Your task to perform on an android device: Go to calendar. Show me events next week Image 0: 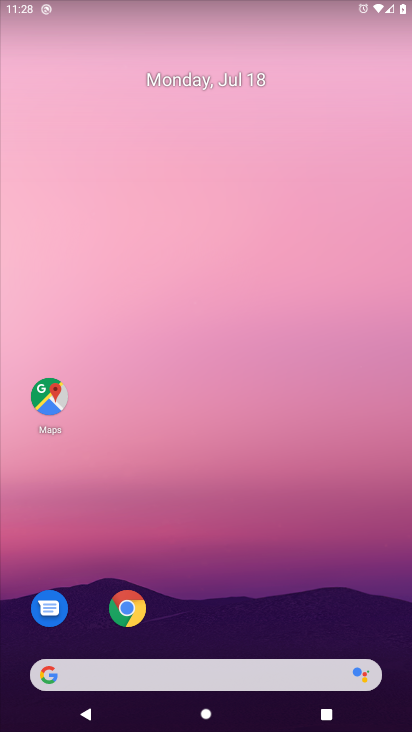
Step 0: drag from (18, 706) to (195, 74)
Your task to perform on an android device: Go to calendar. Show me events next week Image 1: 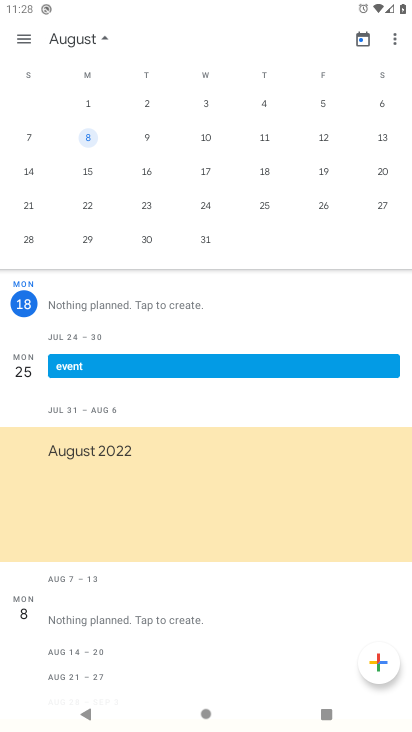
Step 1: drag from (16, 105) to (205, 81)
Your task to perform on an android device: Go to calendar. Show me events next week Image 2: 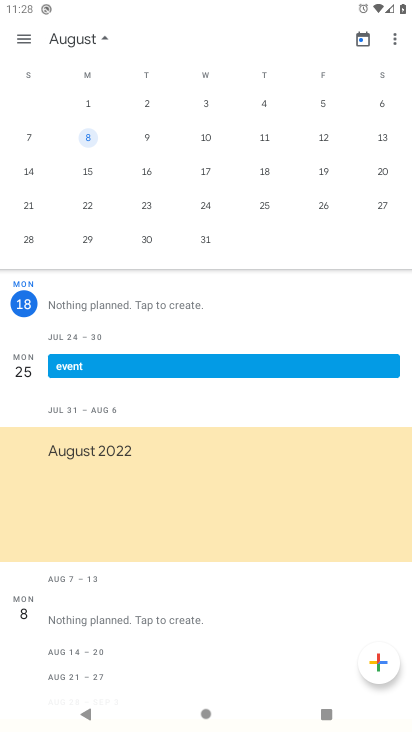
Step 2: drag from (15, 101) to (319, 48)
Your task to perform on an android device: Go to calendar. Show me events next week Image 3: 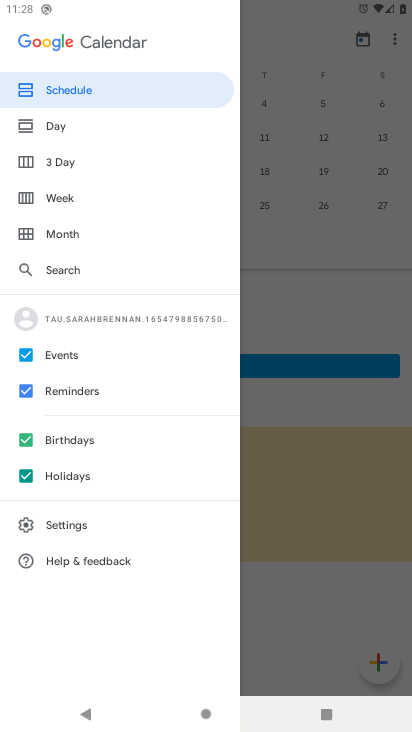
Step 3: click (306, 311)
Your task to perform on an android device: Go to calendar. Show me events next week Image 4: 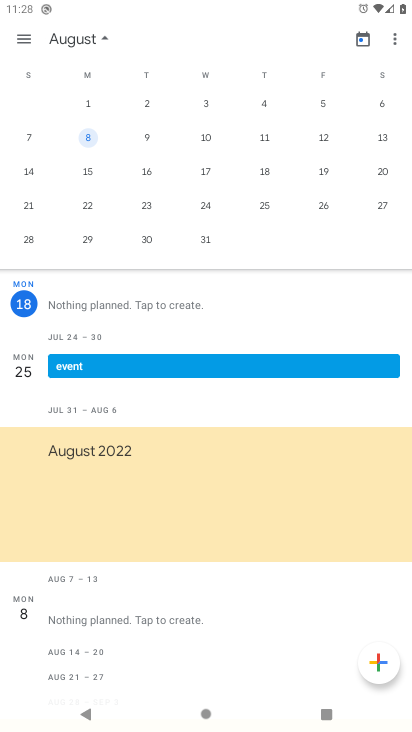
Step 4: task complete